Your task to perform on an android device: Go to calendar. Show me events next week Image 0: 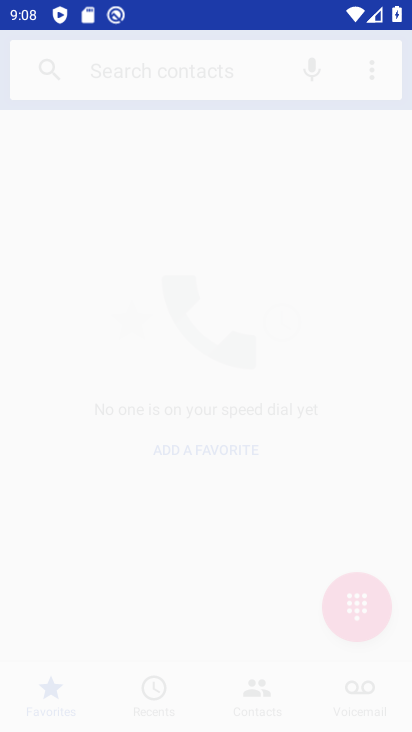
Step 0: drag from (201, 638) to (264, 150)
Your task to perform on an android device: Go to calendar. Show me events next week Image 1: 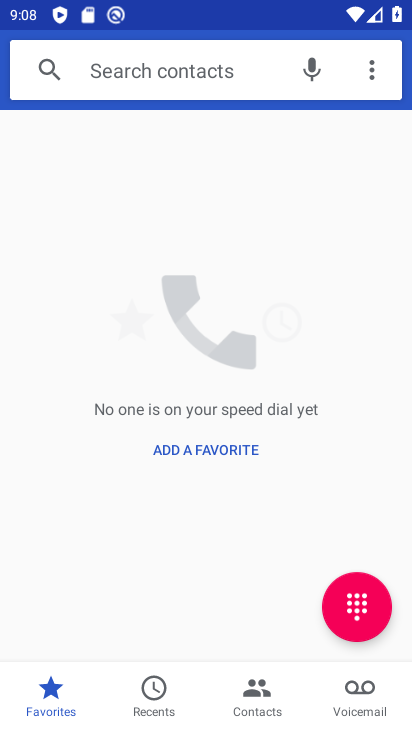
Step 1: press back button
Your task to perform on an android device: Go to calendar. Show me events next week Image 2: 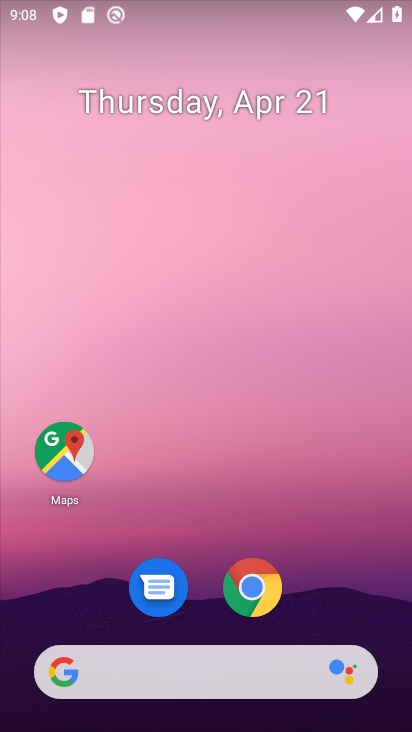
Step 2: drag from (122, 533) to (242, 67)
Your task to perform on an android device: Go to calendar. Show me events next week Image 3: 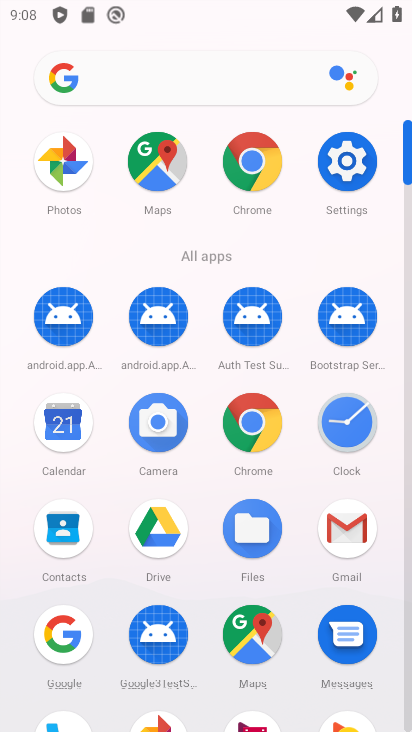
Step 3: click (57, 429)
Your task to perform on an android device: Go to calendar. Show me events next week Image 4: 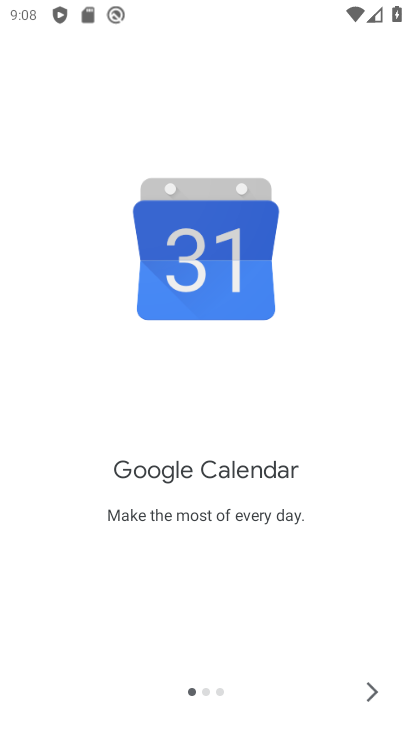
Step 4: click (365, 687)
Your task to perform on an android device: Go to calendar. Show me events next week Image 5: 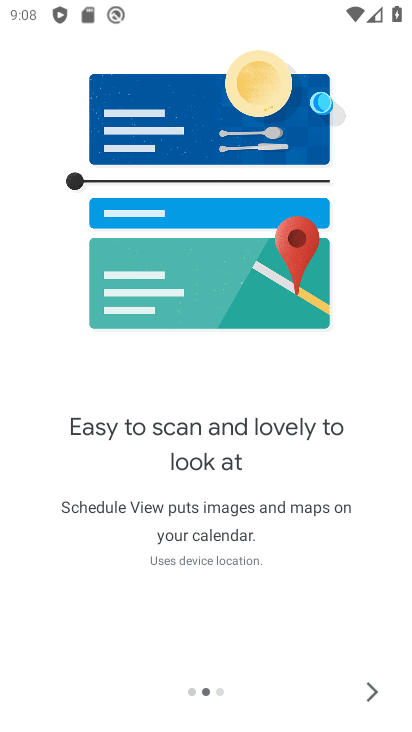
Step 5: click (365, 687)
Your task to perform on an android device: Go to calendar. Show me events next week Image 6: 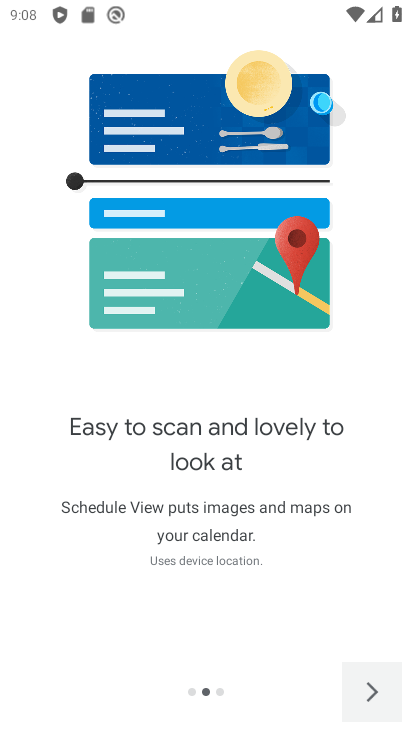
Step 6: click (365, 687)
Your task to perform on an android device: Go to calendar. Show me events next week Image 7: 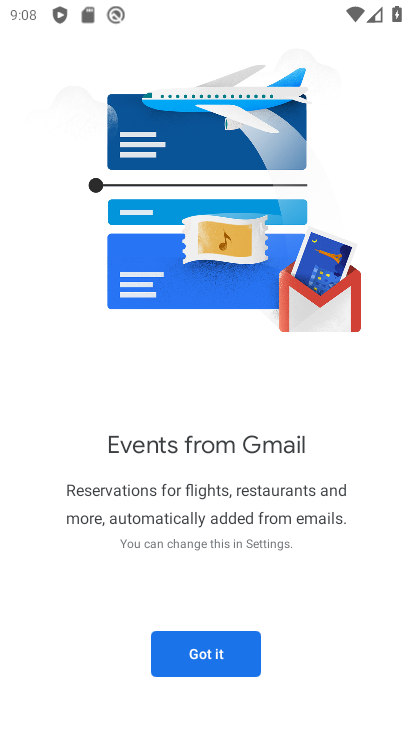
Step 7: click (202, 644)
Your task to perform on an android device: Go to calendar. Show me events next week Image 8: 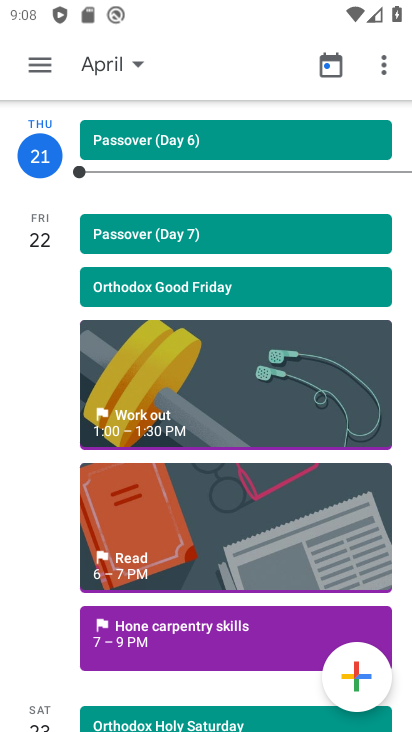
Step 8: task complete